Your task to perform on an android device: Play the last video I watched on Youtube Image 0: 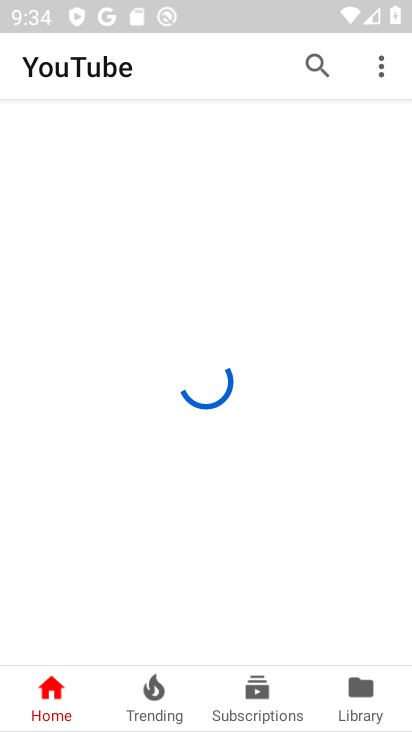
Step 0: drag from (370, 539) to (313, 336)
Your task to perform on an android device: Play the last video I watched on Youtube Image 1: 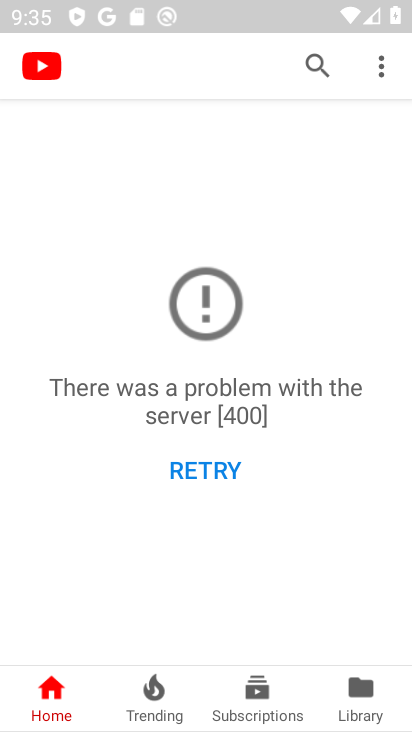
Step 1: click (381, 716)
Your task to perform on an android device: Play the last video I watched on Youtube Image 2: 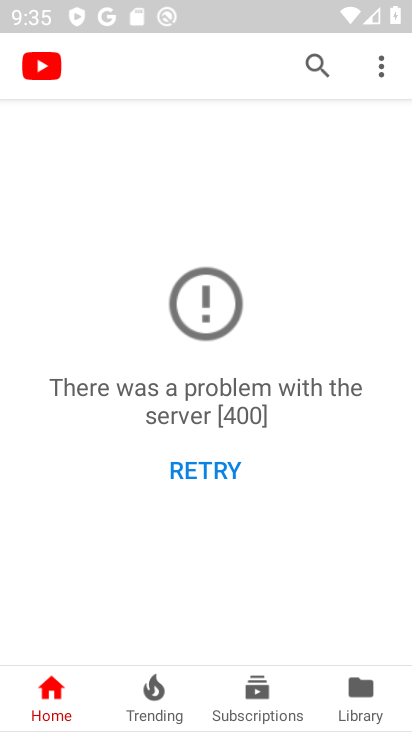
Step 2: click (381, 704)
Your task to perform on an android device: Play the last video I watched on Youtube Image 3: 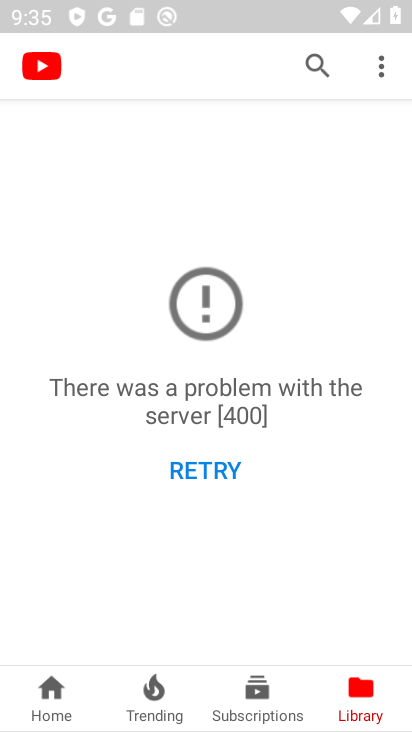
Step 3: click (211, 463)
Your task to perform on an android device: Play the last video I watched on Youtube Image 4: 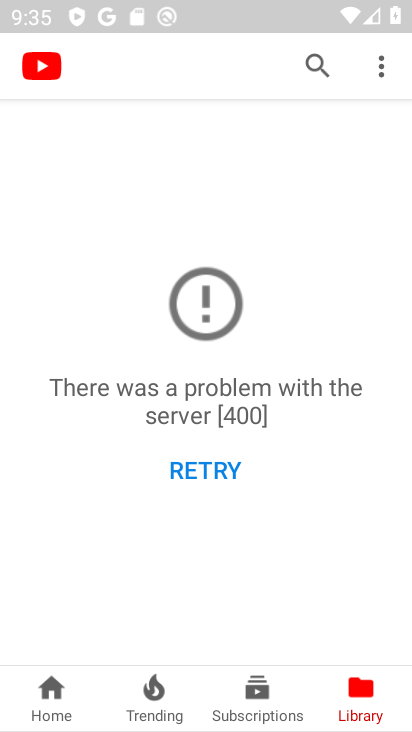
Step 4: task complete